Your task to perform on an android device: Open calendar and show me the first week of next month Image 0: 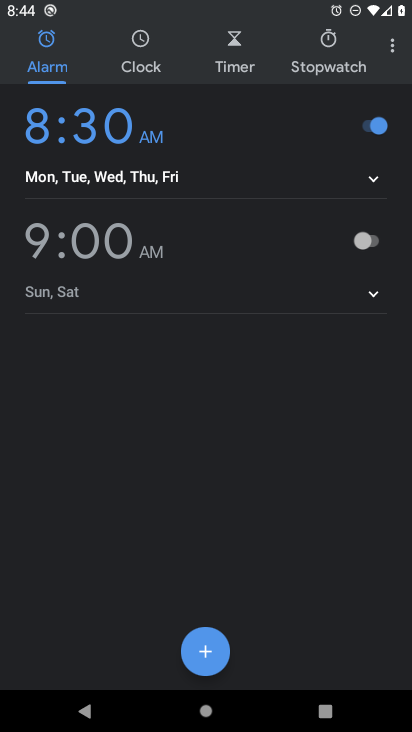
Step 0: press home button
Your task to perform on an android device: Open calendar and show me the first week of next month Image 1: 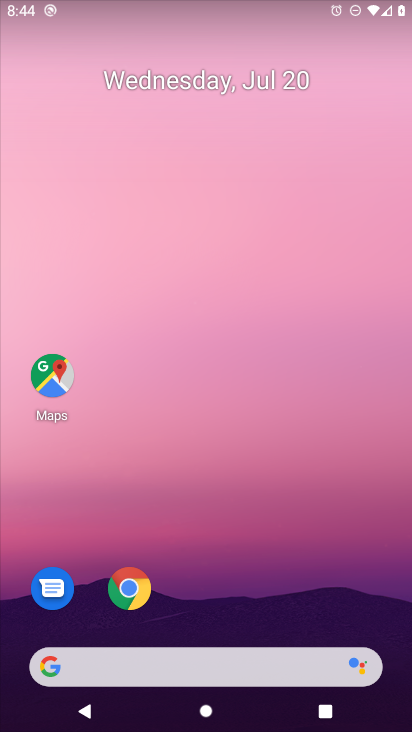
Step 1: drag from (20, 703) to (243, 148)
Your task to perform on an android device: Open calendar and show me the first week of next month Image 2: 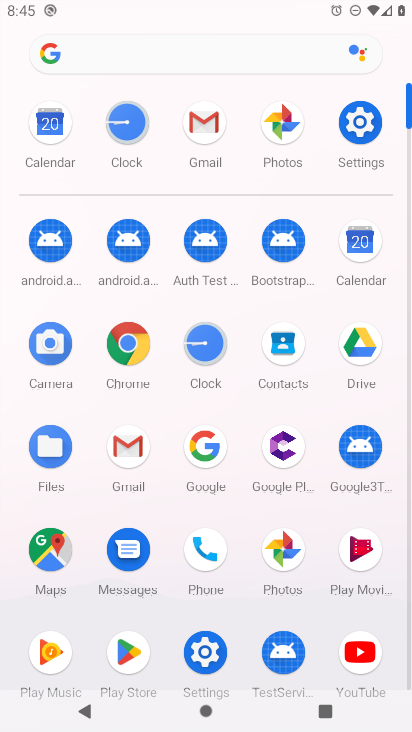
Step 2: click (361, 248)
Your task to perform on an android device: Open calendar and show me the first week of next month Image 3: 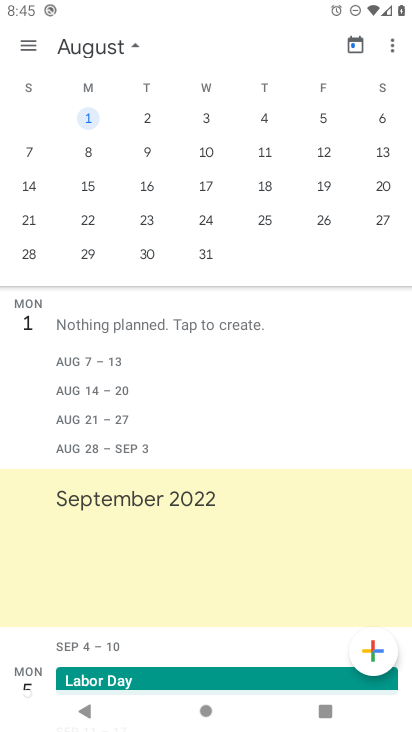
Step 3: task complete